Your task to perform on an android device: turn off translation in the chrome app Image 0: 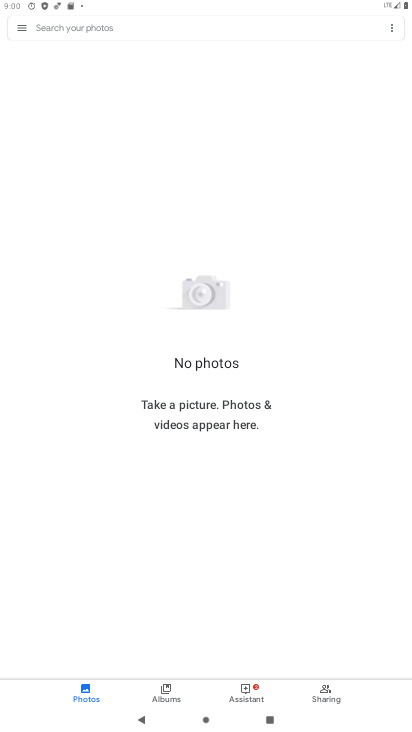
Step 0: press home button
Your task to perform on an android device: turn off translation in the chrome app Image 1: 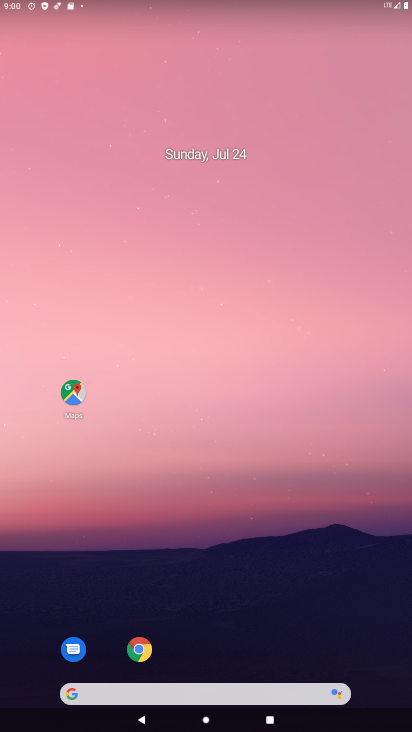
Step 1: click (151, 643)
Your task to perform on an android device: turn off translation in the chrome app Image 2: 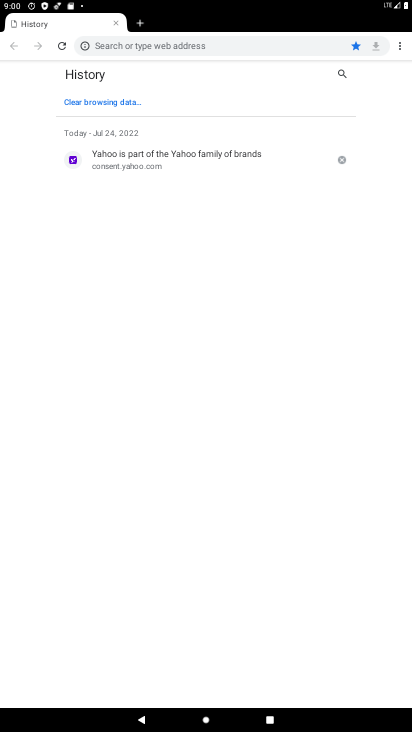
Step 2: click (402, 45)
Your task to perform on an android device: turn off translation in the chrome app Image 3: 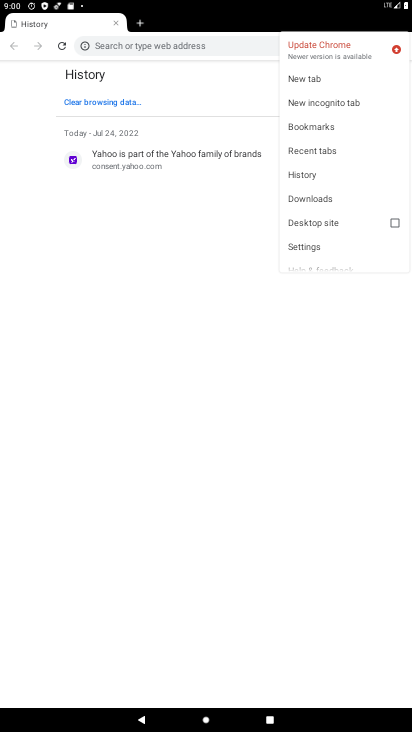
Step 3: click (307, 251)
Your task to perform on an android device: turn off translation in the chrome app Image 4: 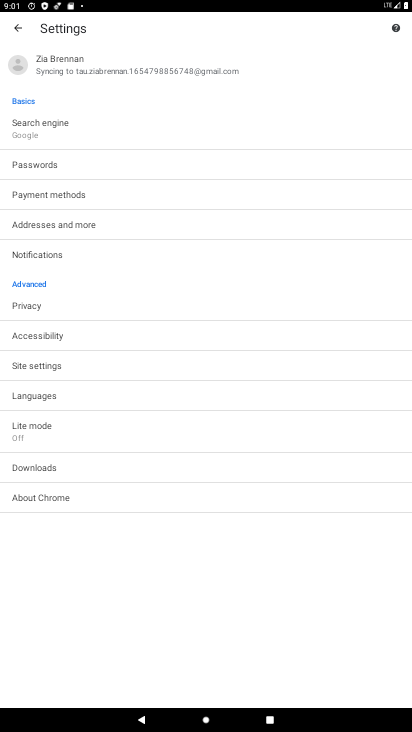
Step 4: click (37, 396)
Your task to perform on an android device: turn off translation in the chrome app Image 5: 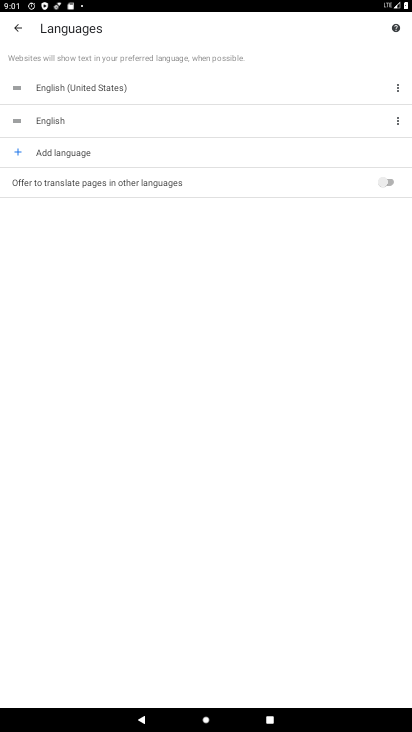
Step 5: task complete